Your task to perform on an android device: Open calendar and show me the first week of next month Image 0: 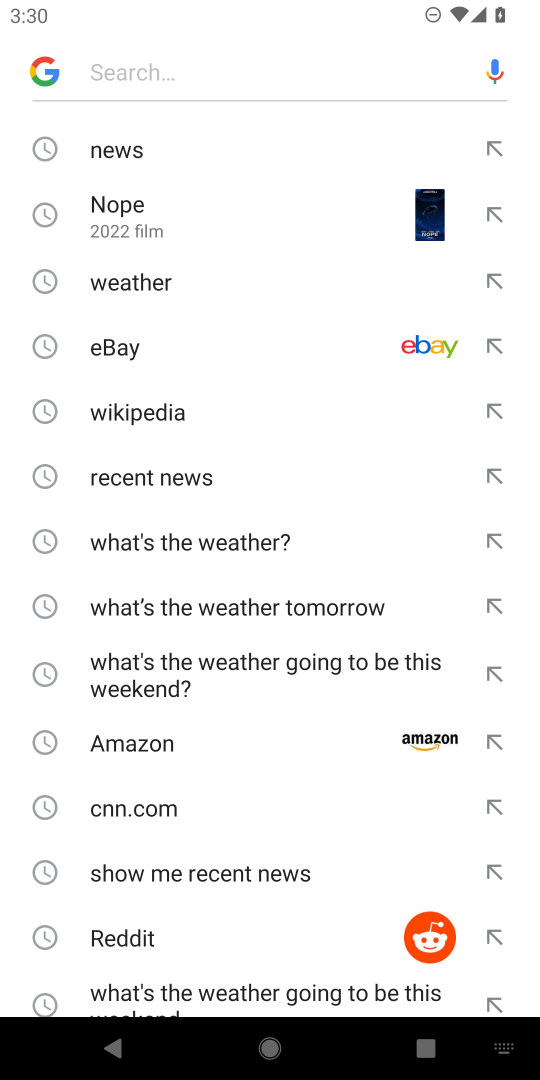
Step 0: press home button
Your task to perform on an android device: Open calendar and show me the first week of next month Image 1: 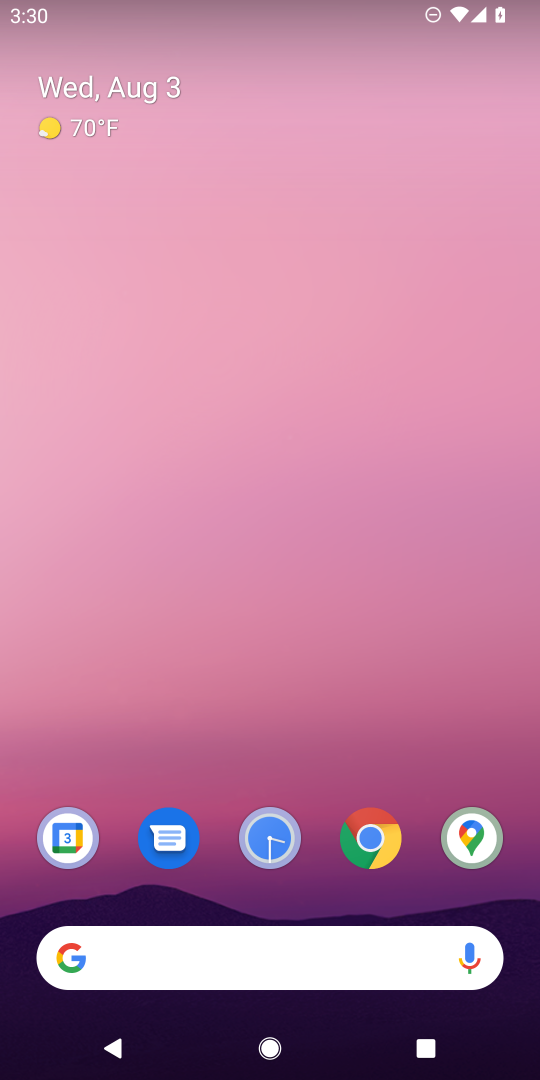
Step 1: click (69, 840)
Your task to perform on an android device: Open calendar and show me the first week of next month Image 2: 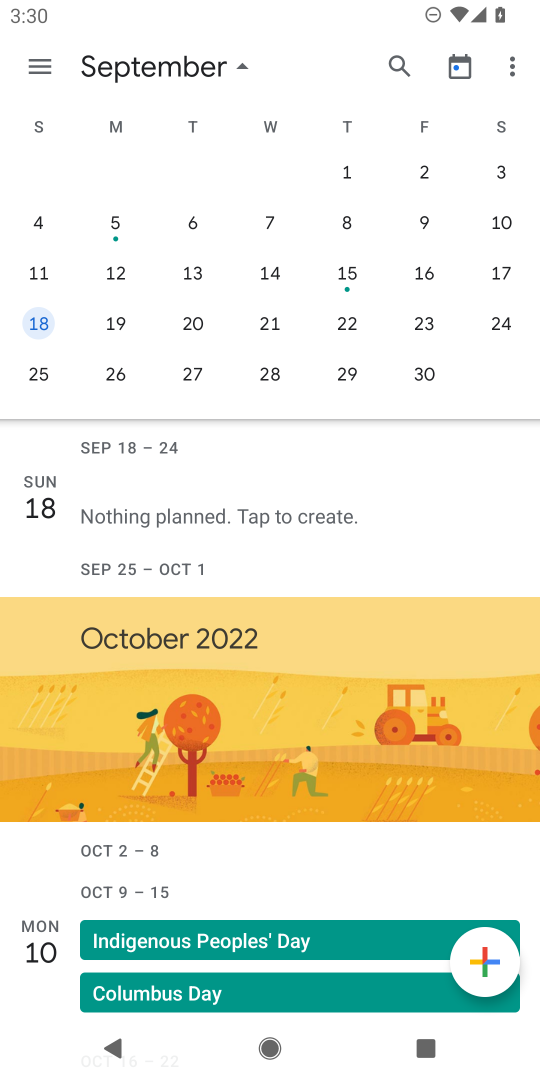
Step 2: click (350, 171)
Your task to perform on an android device: Open calendar and show me the first week of next month Image 3: 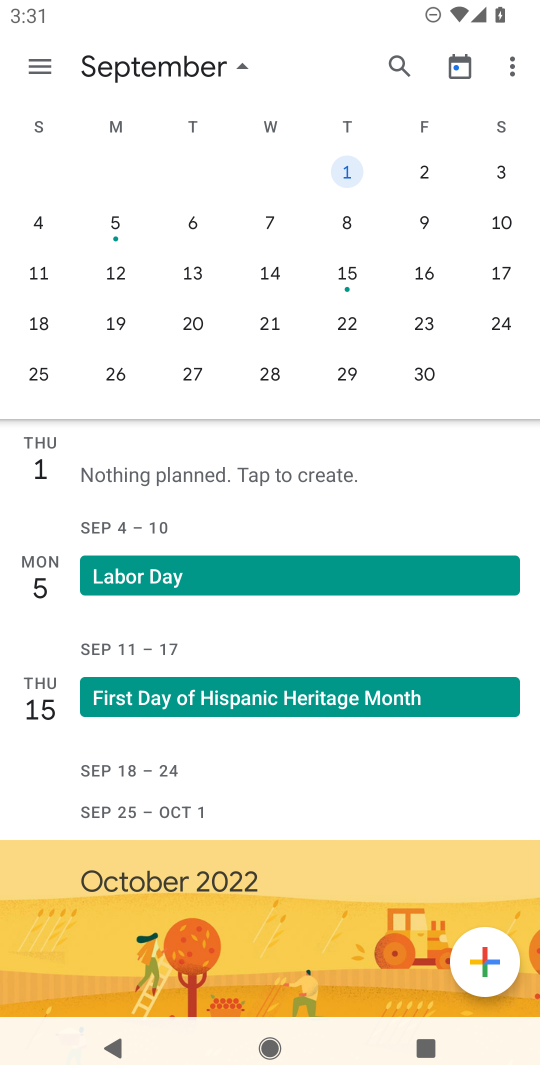
Step 3: task complete